Your task to perform on an android device: uninstall "Google Chrome" Image 0: 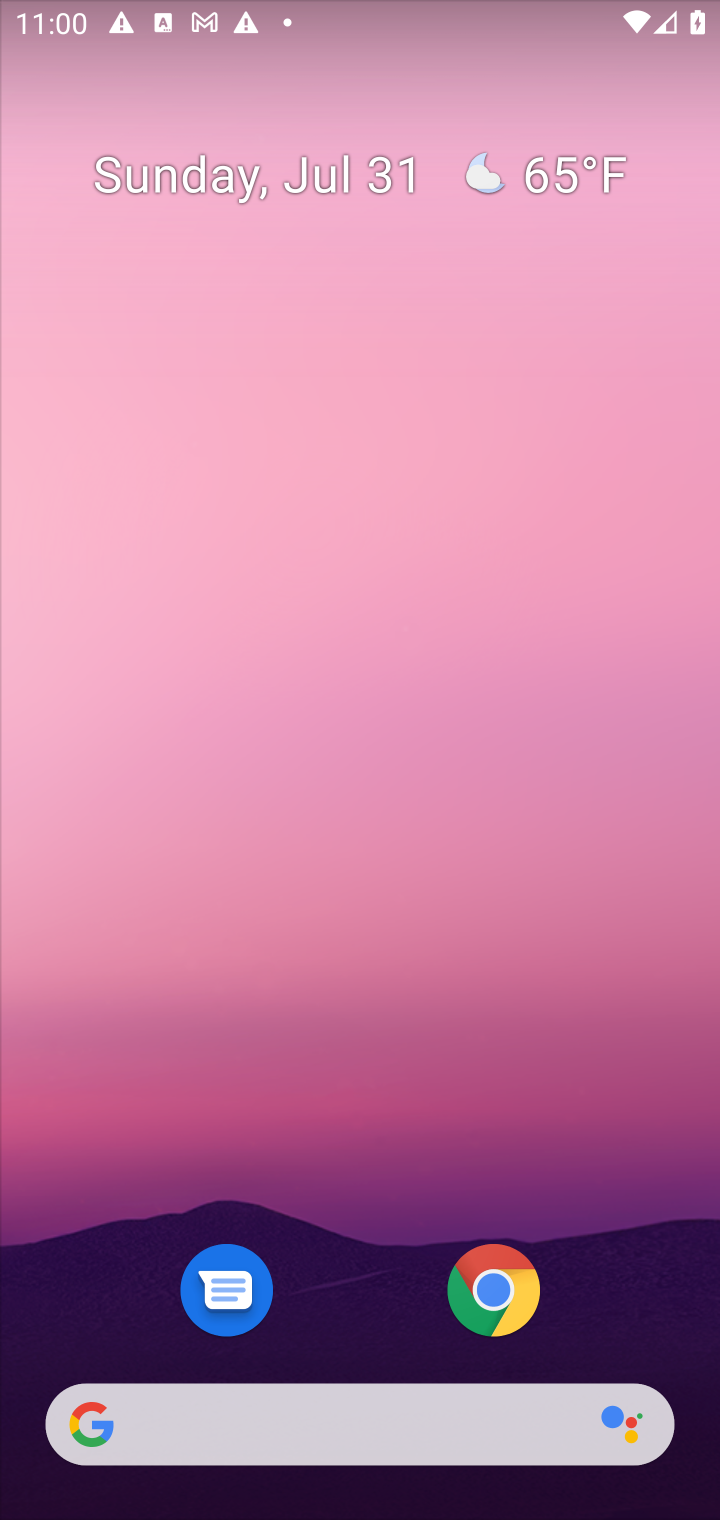
Step 0: press home button
Your task to perform on an android device: uninstall "Google Chrome" Image 1: 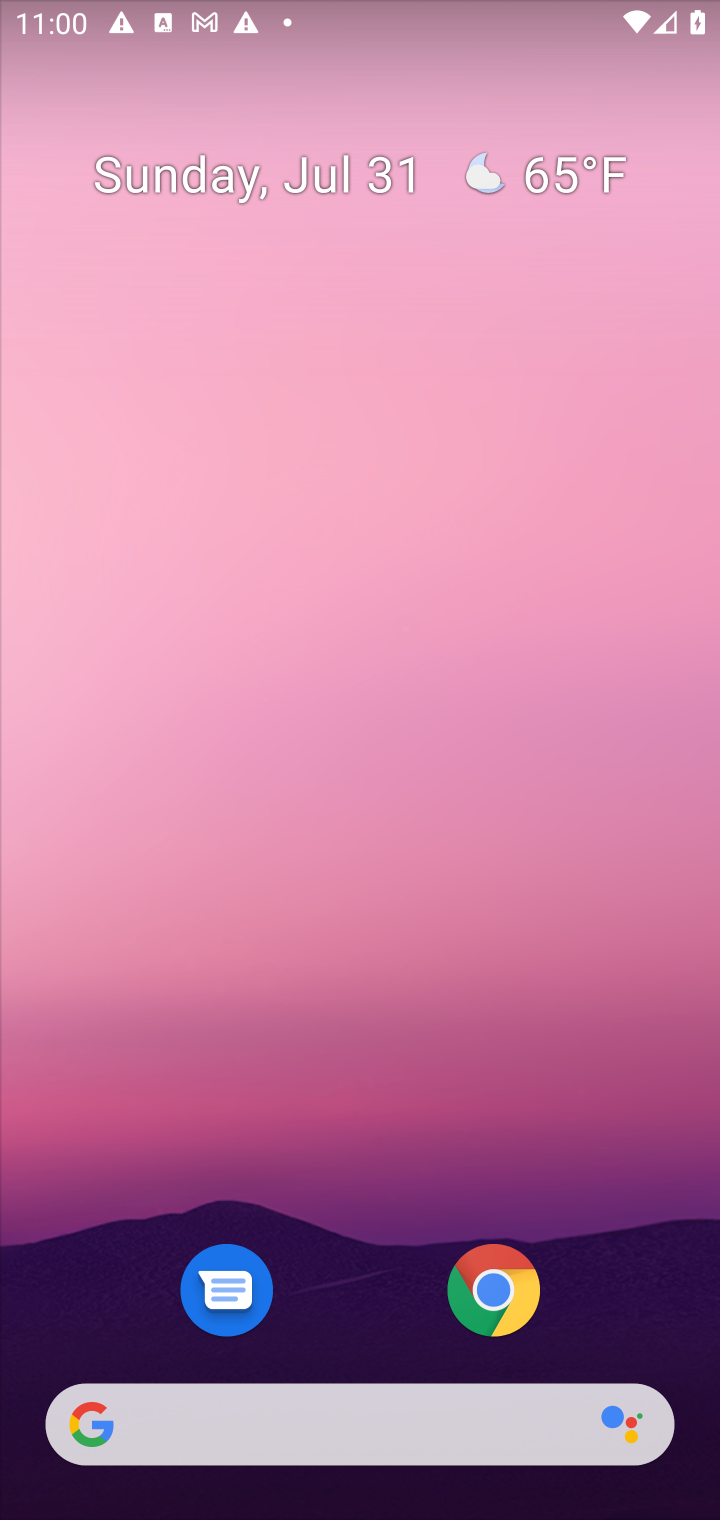
Step 1: drag from (605, 920) to (594, 136)
Your task to perform on an android device: uninstall "Google Chrome" Image 2: 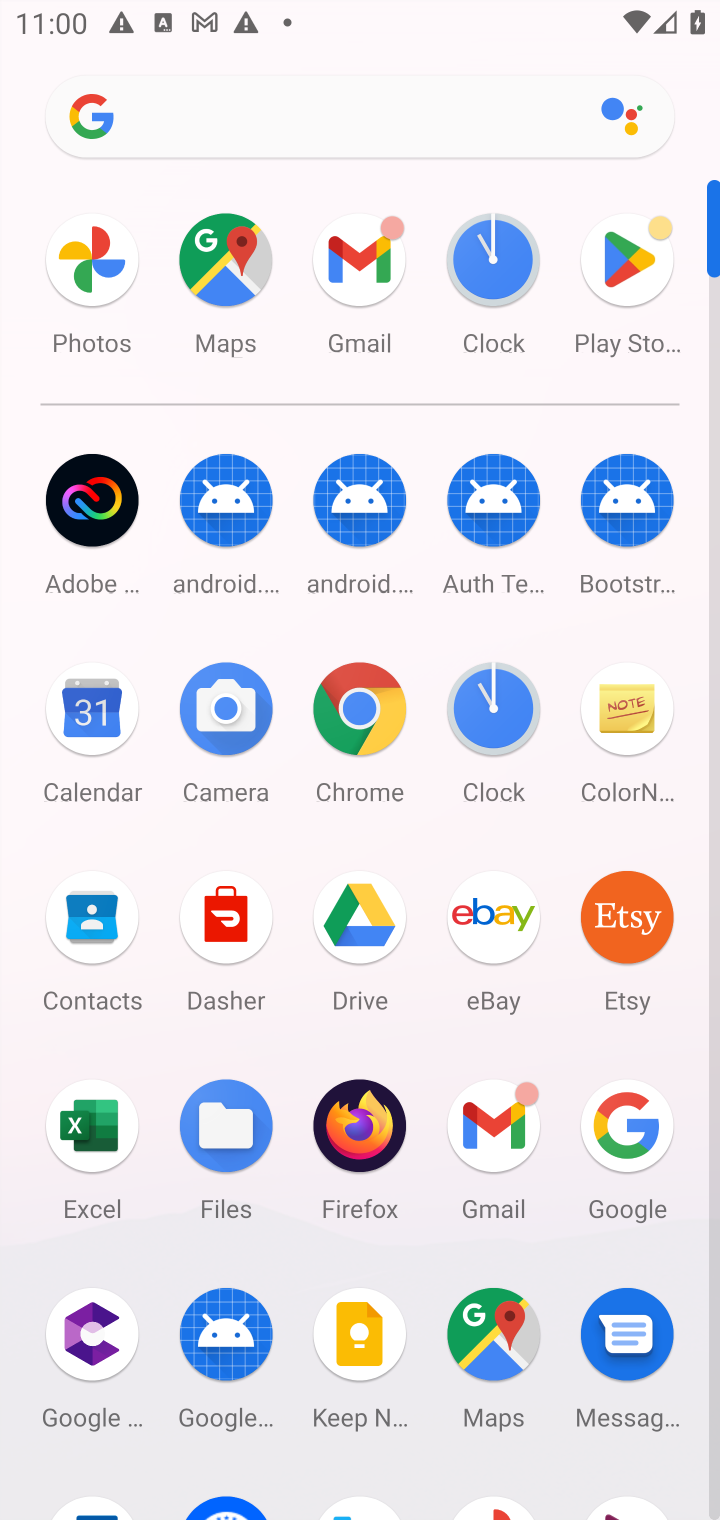
Step 2: click (630, 262)
Your task to perform on an android device: uninstall "Google Chrome" Image 3: 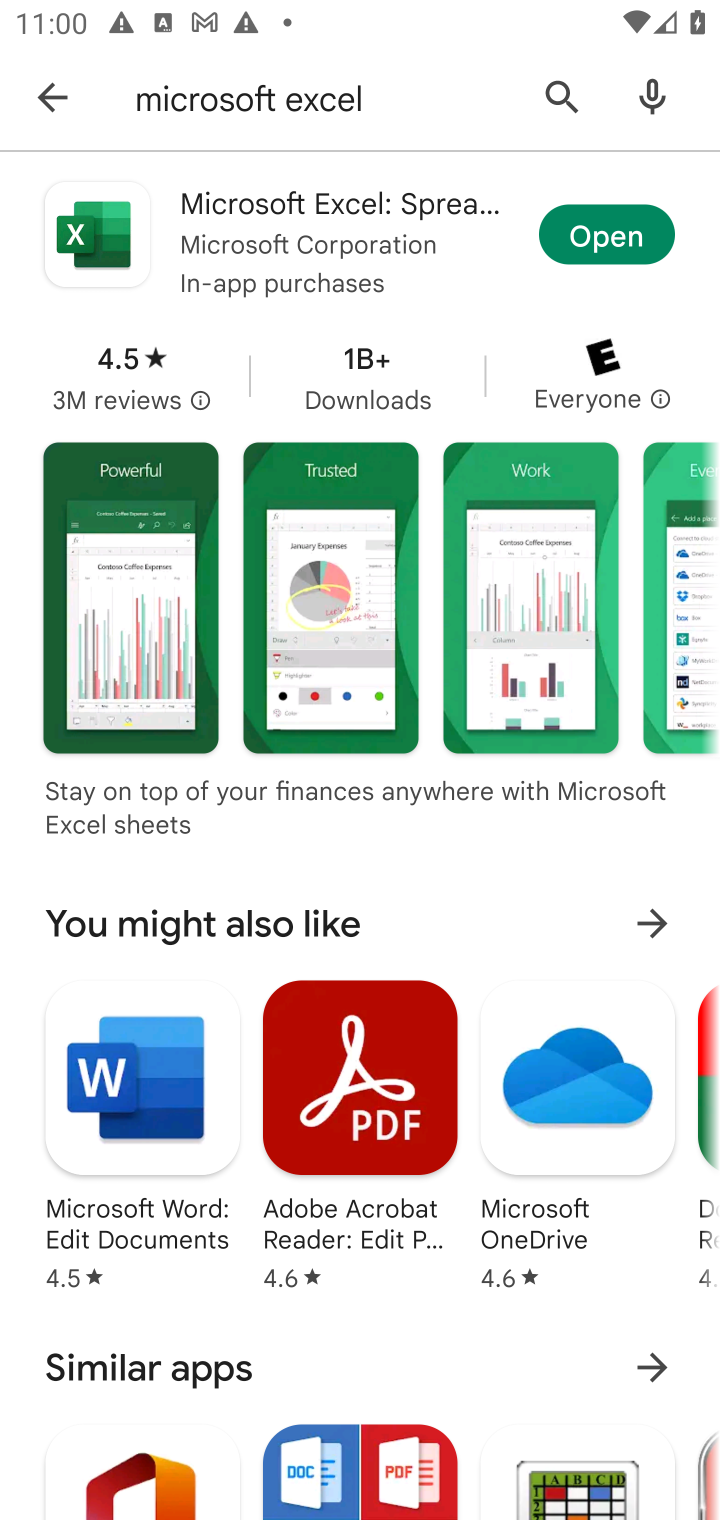
Step 3: click (555, 97)
Your task to perform on an android device: uninstall "Google Chrome" Image 4: 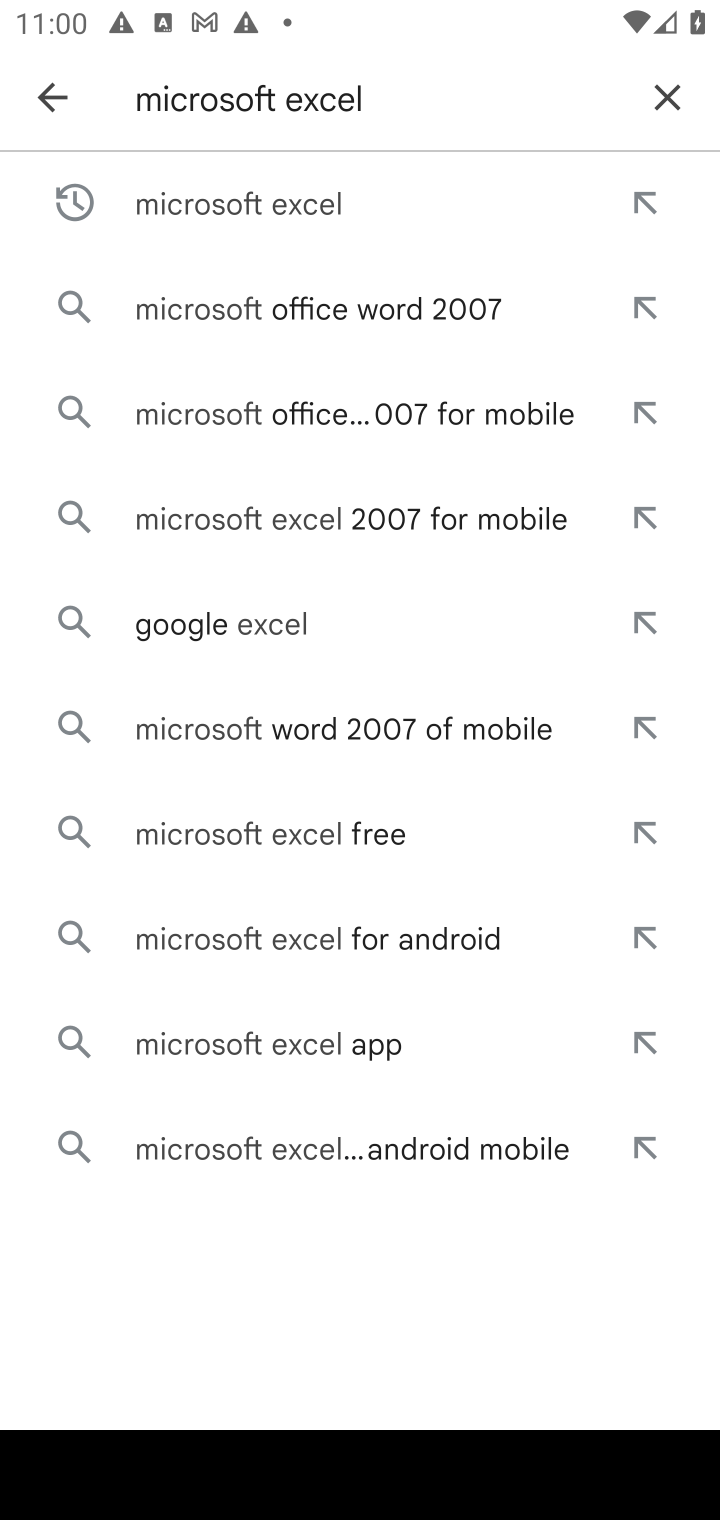
Step 4: click (663, 97)
Your task to perform on an android device: uninstall "Google Chrome" Image 5: 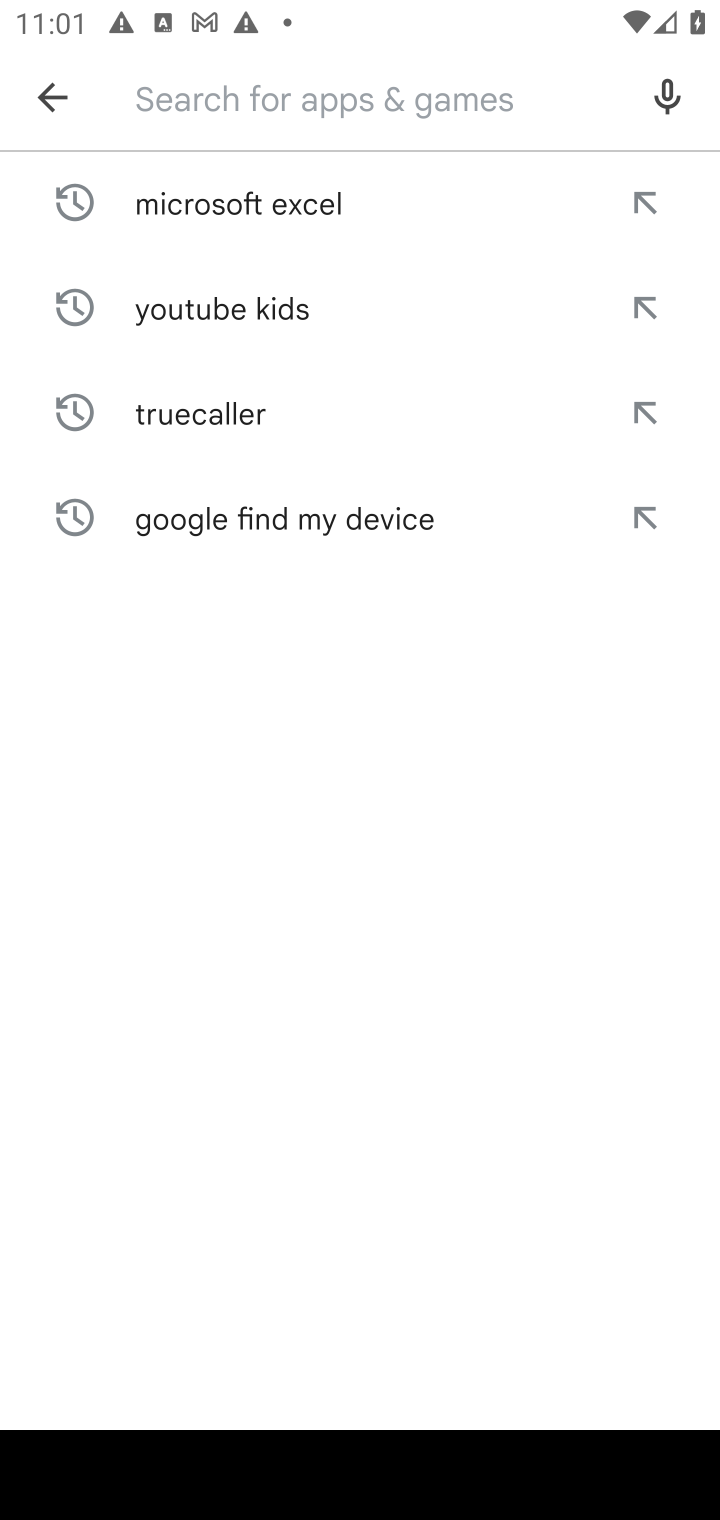
Step 5: click (433, 99)
Your task to perform on an android device: uninstall "Google Chrome" Image 6: 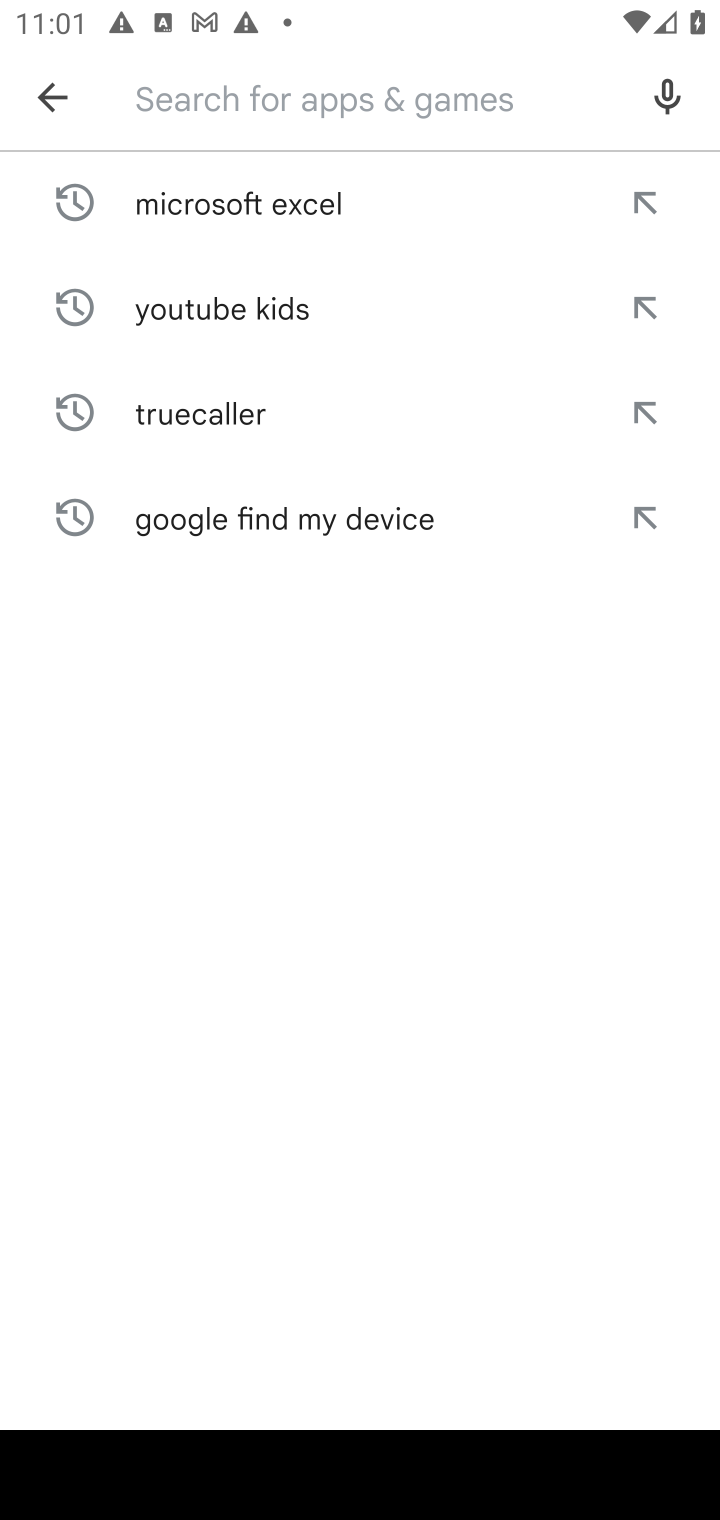
Step 6: type "google chrome"
Your task to perform on an android device: uninstall "Google Chrome" Image 7: 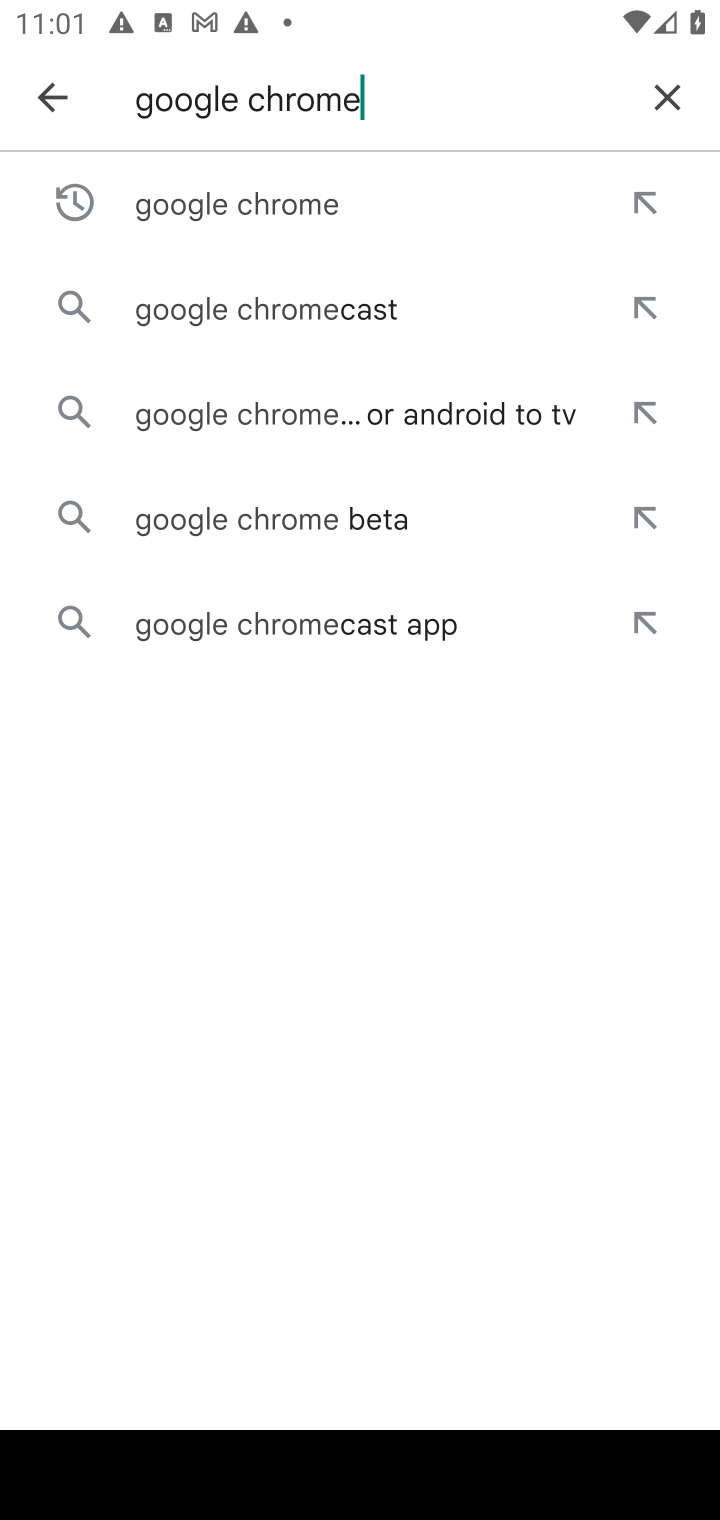
Step 7: click (315, 198)
Your task to perform on an android device: uninstall "Google Chrome" Image 8: 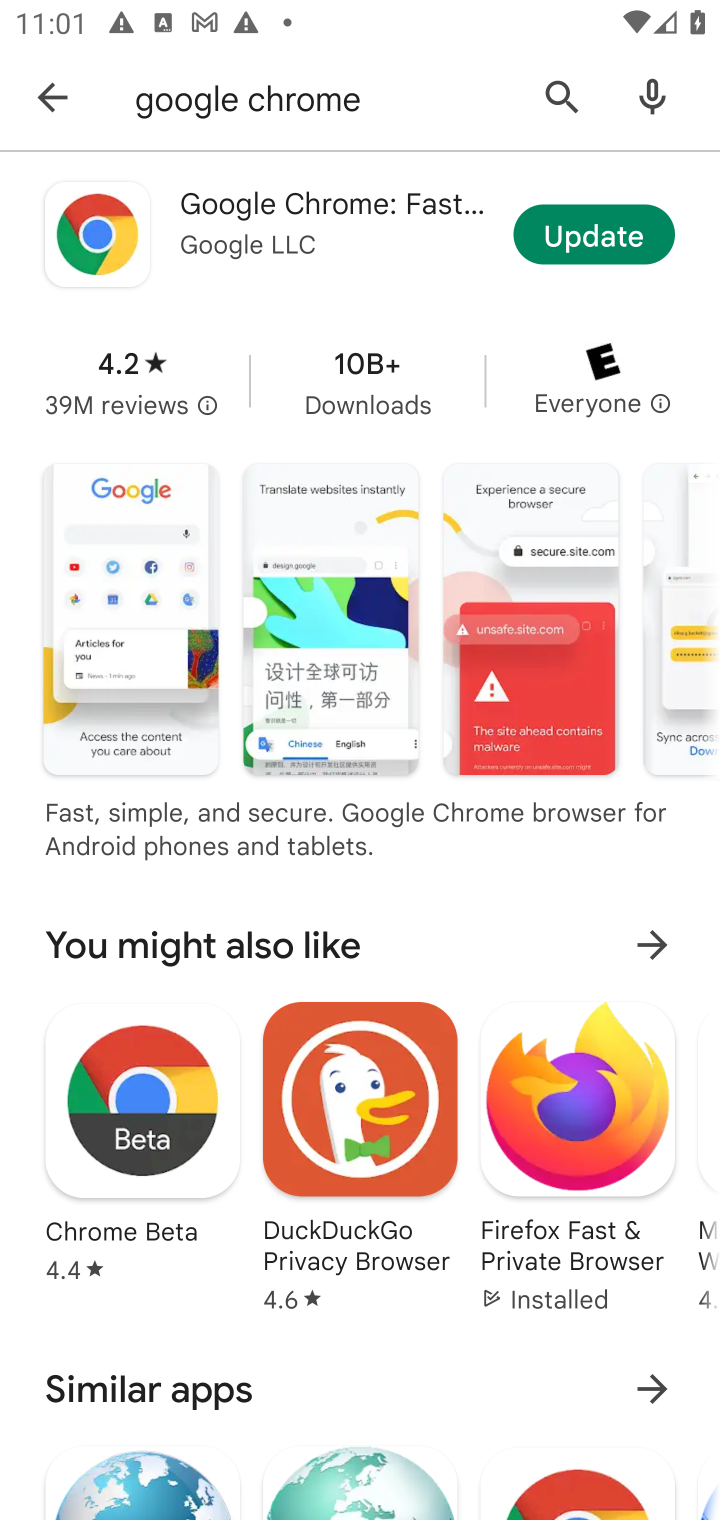
Step 8: task complete